Your task to perform on an android device: Open Google Chrome Image 0: 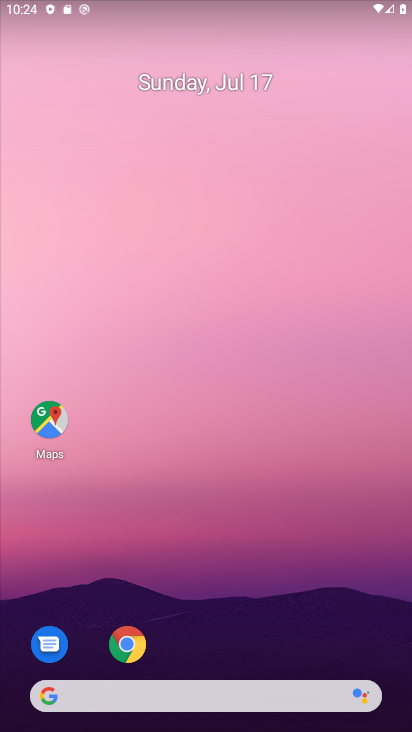
Step 0: drag from (260, 601) to (204, 81)
Your task to perform on an android device: Open Google Chrome Image 1: 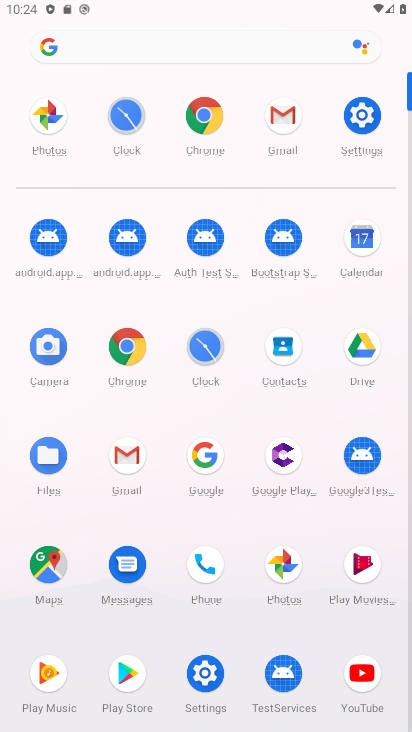
Step 1: click (209, 111)
Your task to perform on an android device: Open Google Chrome Image 2: 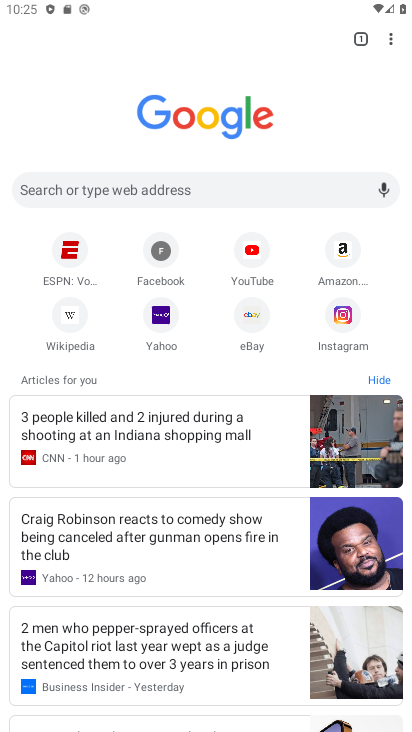
Step 2: task complete